Your task to perform on an android device: change the clock display to show seconds Image 0: 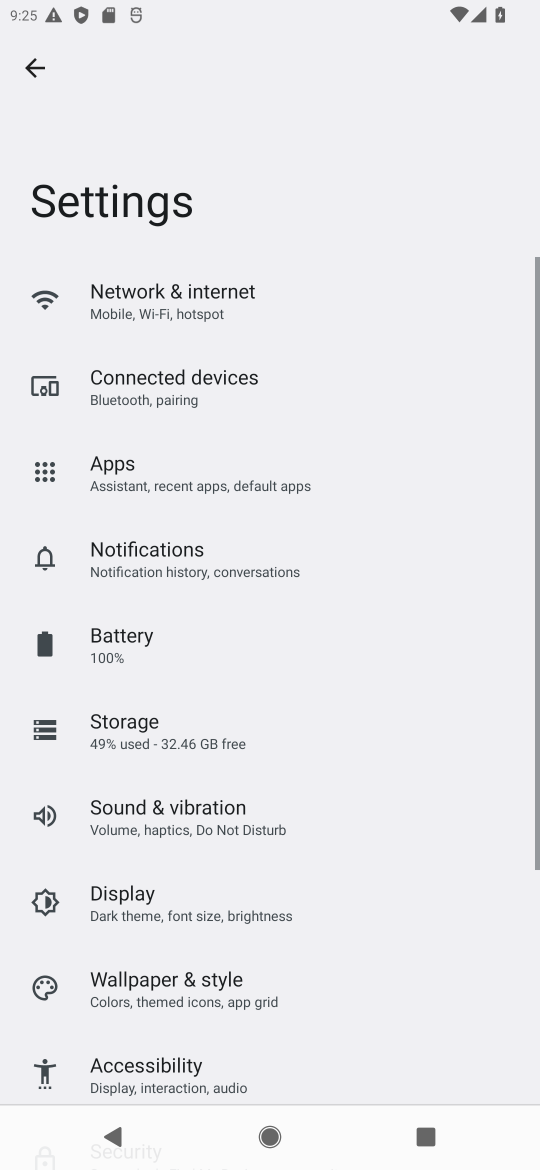
Step 0: press home button
Your task to perform on an android device: change the clock display to show seconds Image 1: 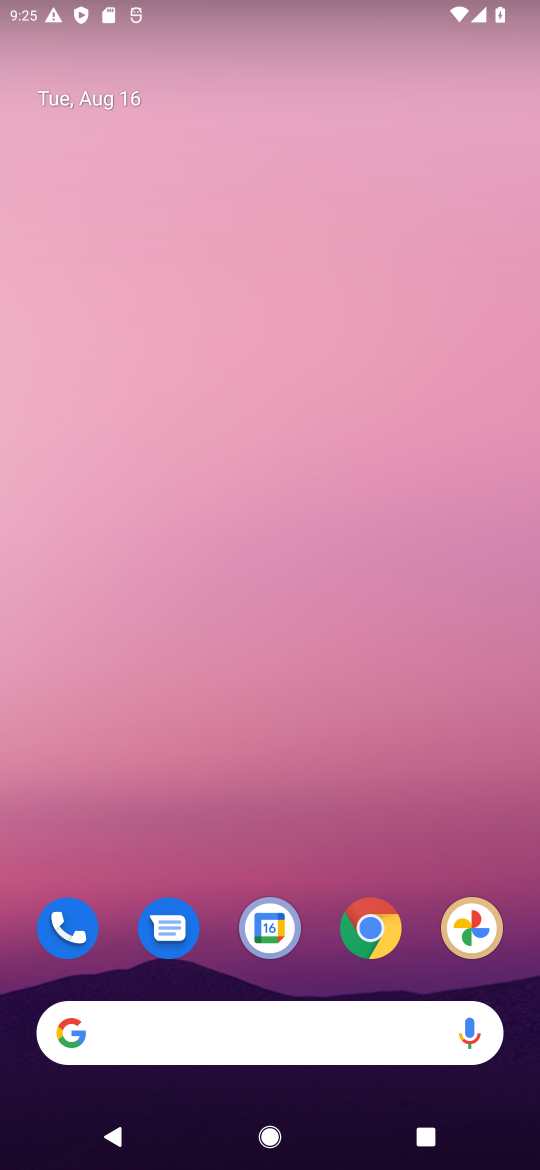
Step 1: drag from (382, 772) to (438, 12)
Your task to perform on an android device: change the clock display to show seconds Image 2: 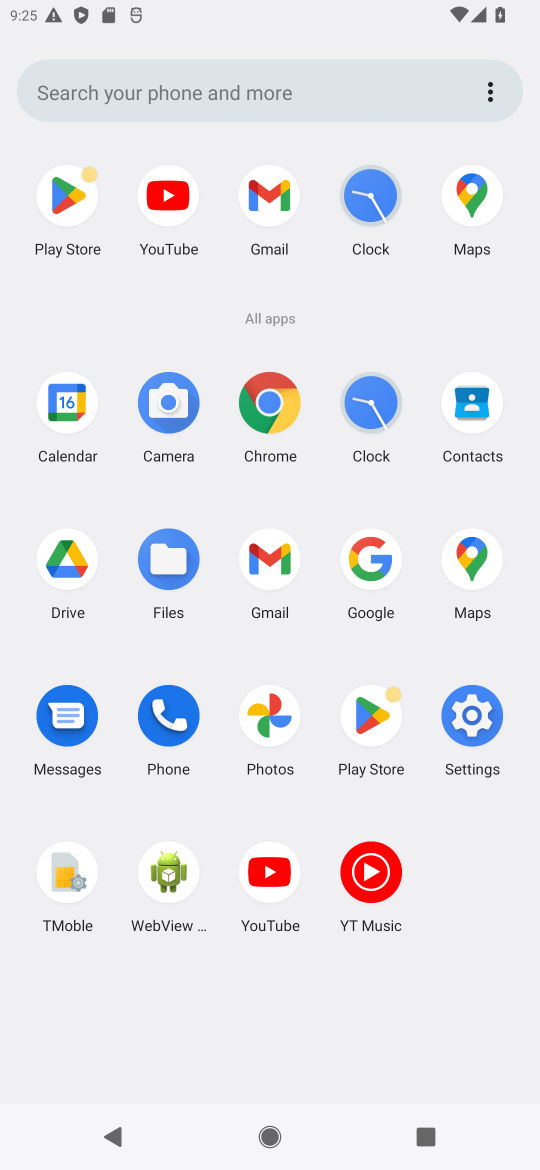
Step 2: click (368, 401)
Your task to perform on an android device: change the clock display to show seconds Image 3: 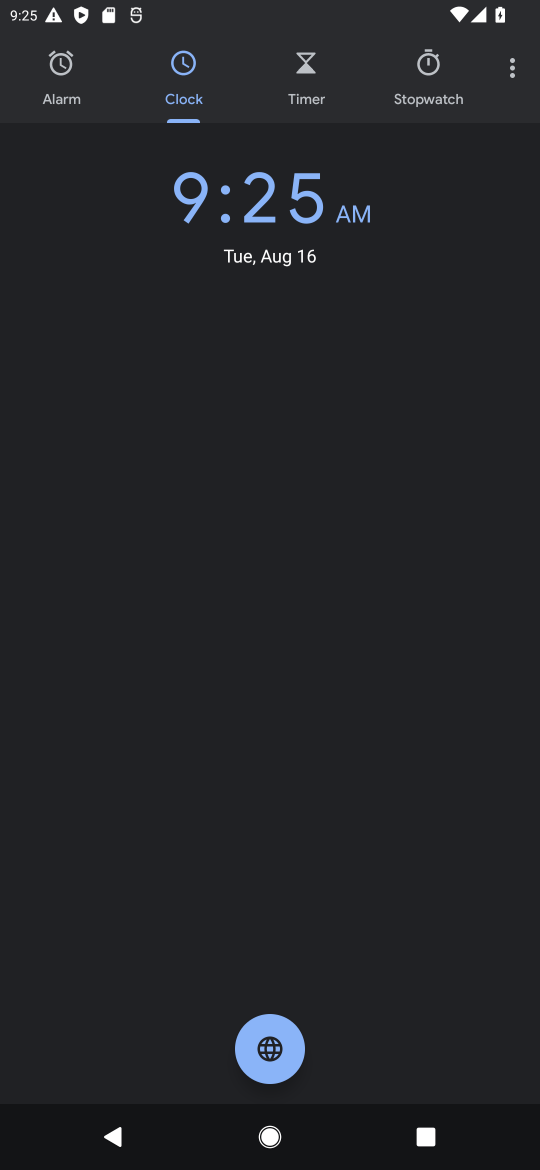
Step 3: click (502, 70)
Your task to perform on an android device: change the clock display to show seconds Image 4: 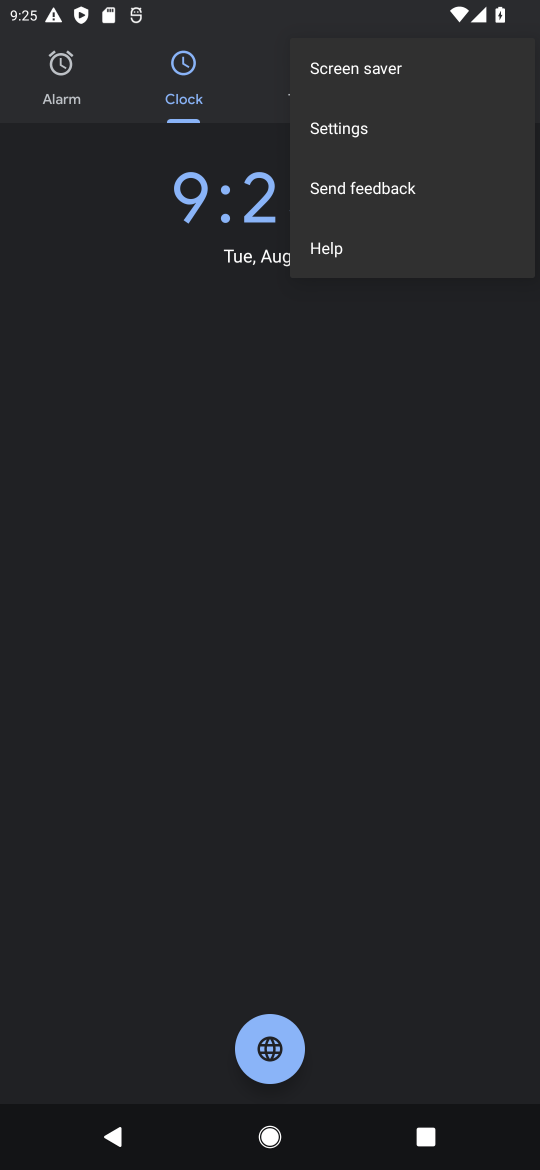
Step 4: click (334, 125)
Your task to perform on an android device: change the clock display to show seconds Image 5: 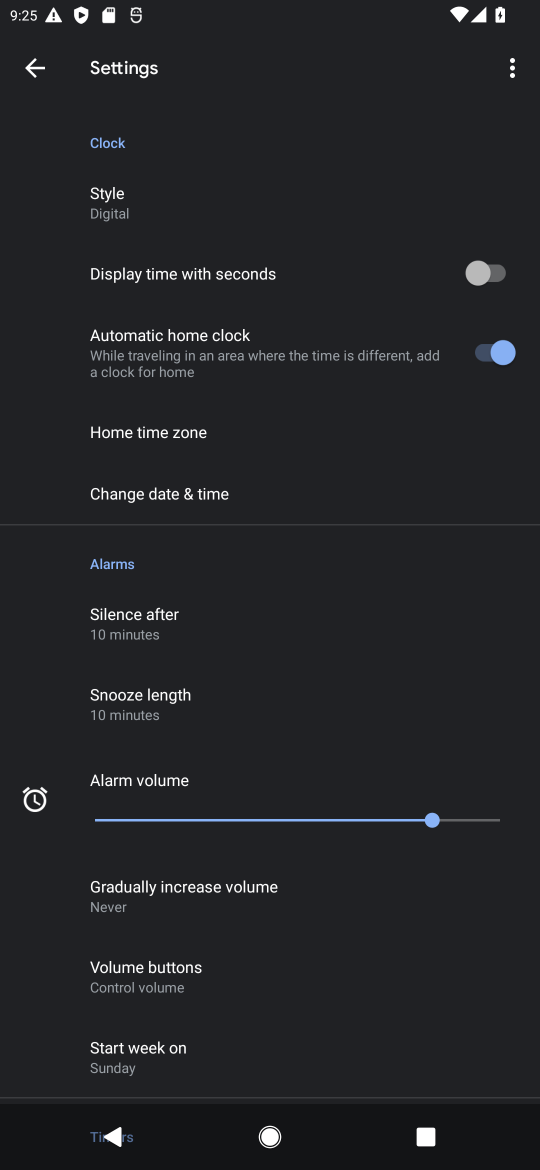
Step 5: click (483, 263)
Your task to perform on an android device: change the clock display to show seconds Image 6: 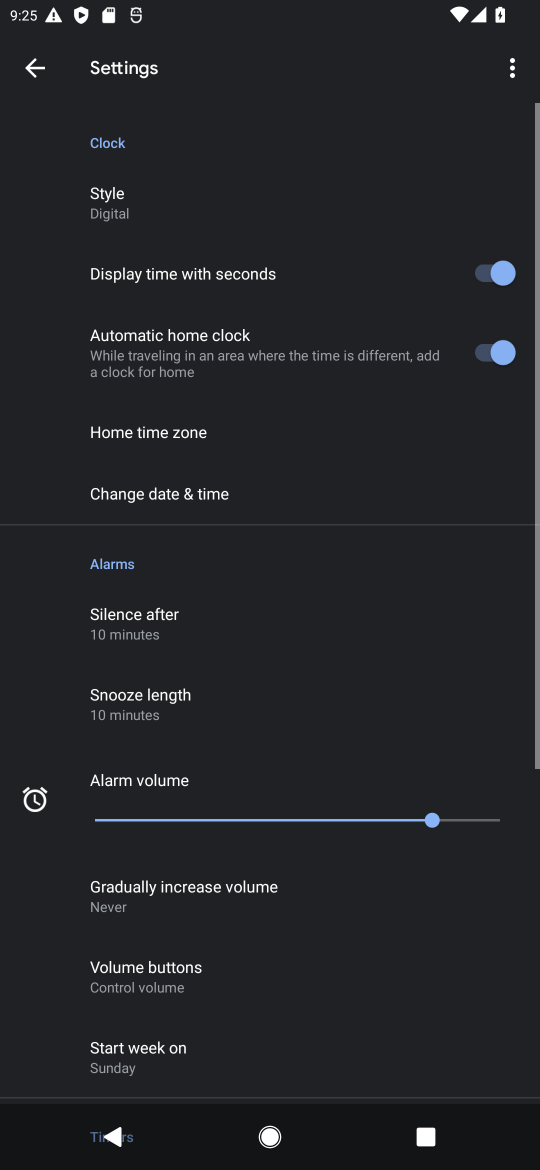
Step 6: task complete